Your task to perform on an android device: toggle javascript in the chrome app Image 0: 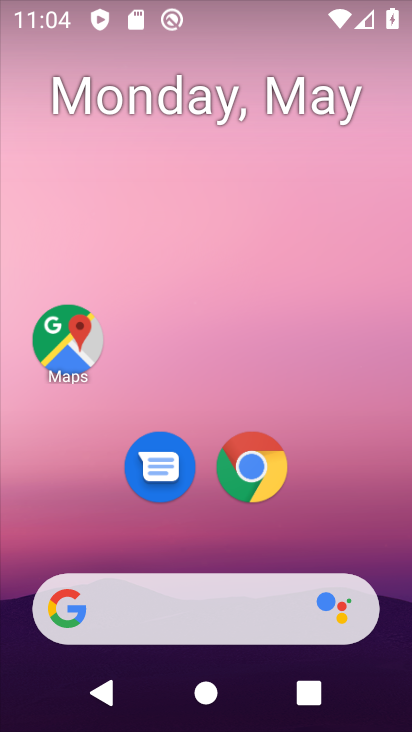
Step 0: click (274, 467)
Your task to perform on an android device: toggle javascript in the chrome app Image 1: 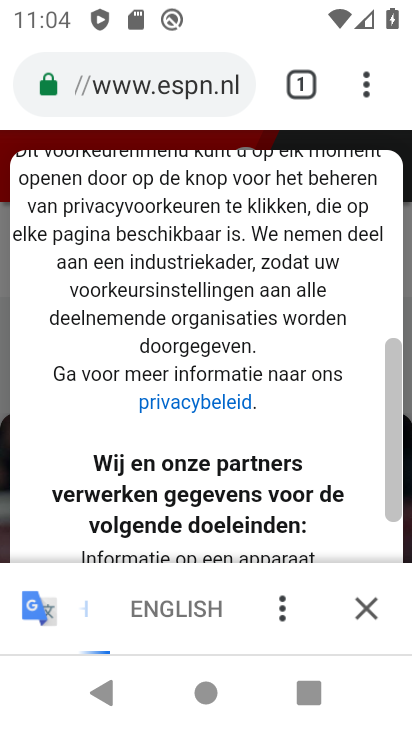
Step 1: click (371, 72)
Your task to perform on an android device: toggle javascript in the chrome app Image 2: 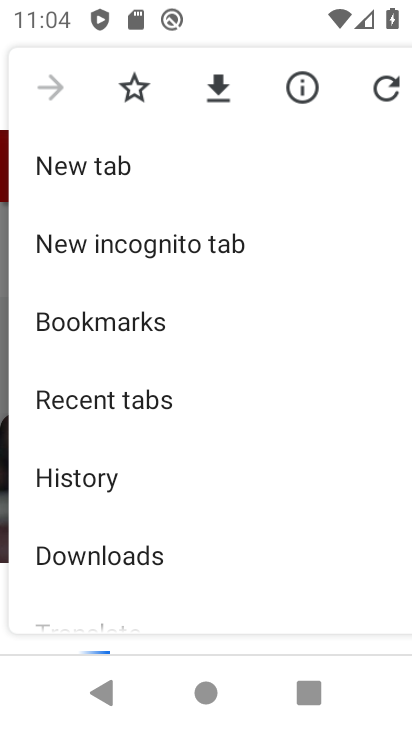
Step 2: drag from (149, 470) to (166, 243)
Your task to perform on an android device: toggle javascript in the chrome app Image 3: 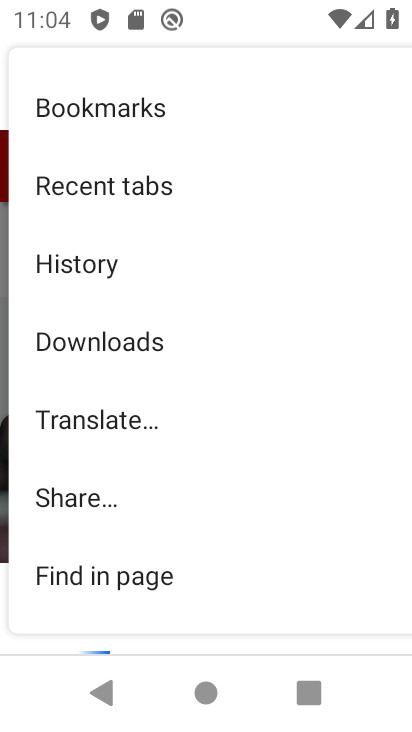
Step 3: drag from (160, 561) to (166, 454)
Your task to perform on an android device: toggle javascript in the chrome app Image 4: 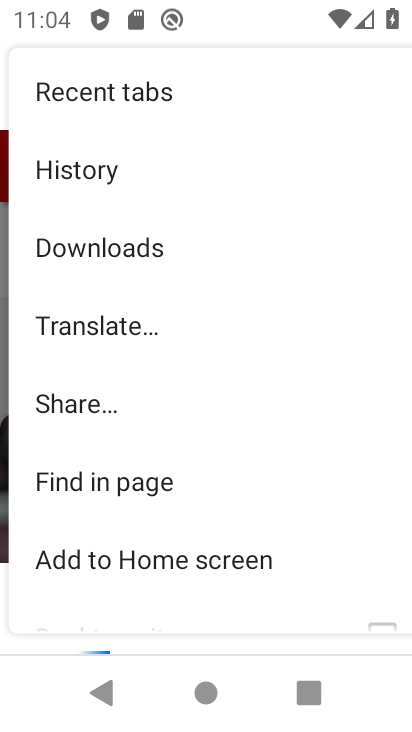
Step 4: drag from (161, 524) to (162, 473)
Your task to perform on an android device: toggle javascript in the chrome app Image 5: 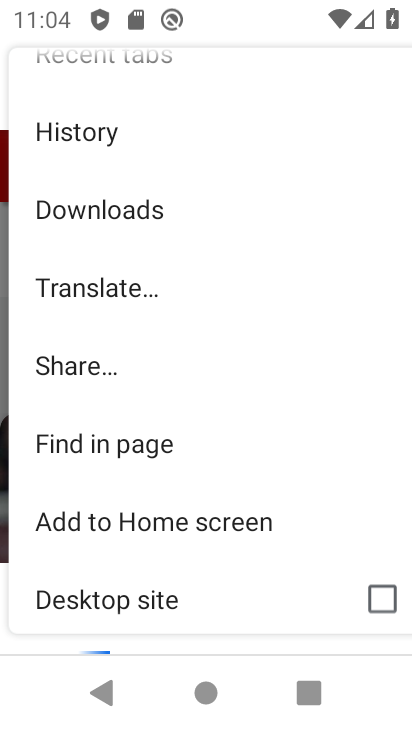
Step 5: drag from (165, 609) to (180, 273)
Your task to perform on an android device: toggle javascript in the chrome app Image 6: 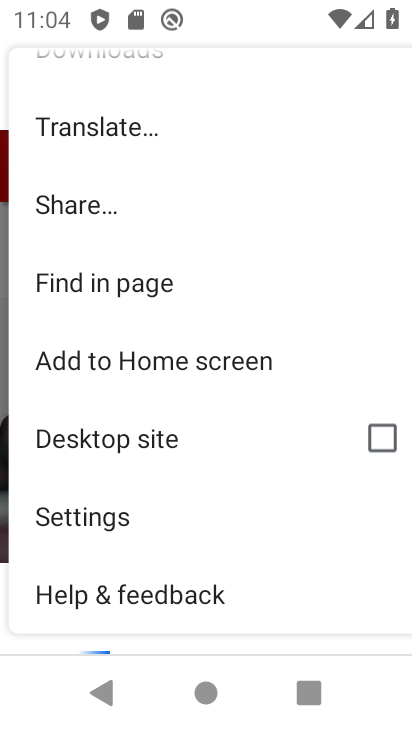
Step 6: click (162, 513)
Your task to perform on an android device: toggle javascript in the chrome app Image 7: 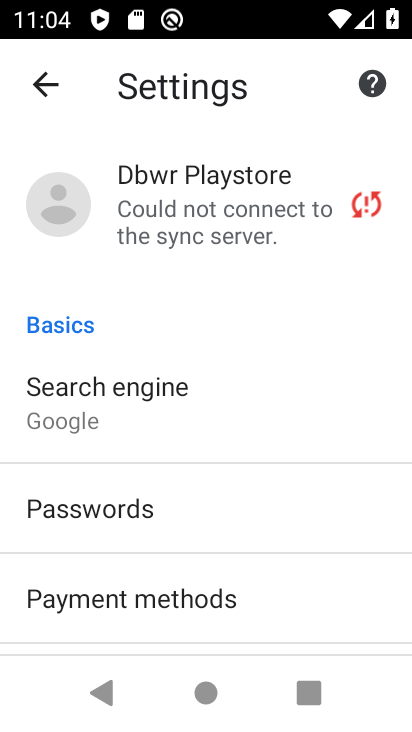
Step 7: drag from (192, 454) to (257, 193)
Your task to perform on an android device: toggle javascript in the chrome app Image 8: 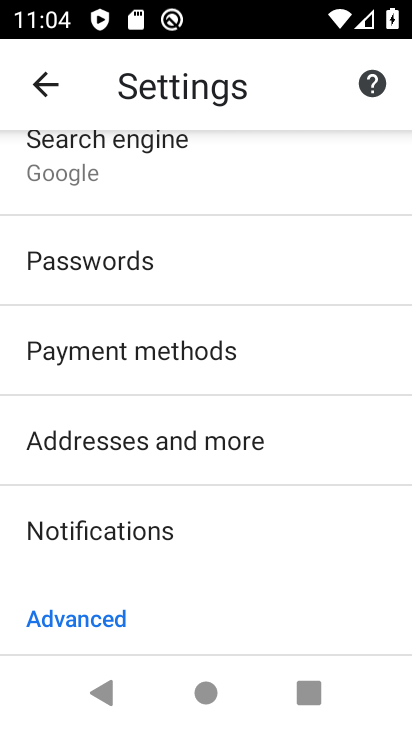
Step 8: drag from (132, 565) to (188, 182)
Your task to perform on an android device: toggle javascript in the chrome app Image 9: 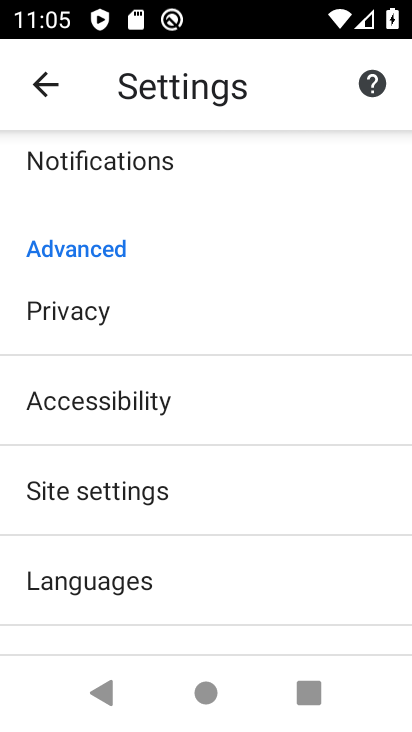
Step 9: drag from (149, 606) to (174, 423)
Your task to perform on an android device: toggle javascript in the chrome app Image 10: 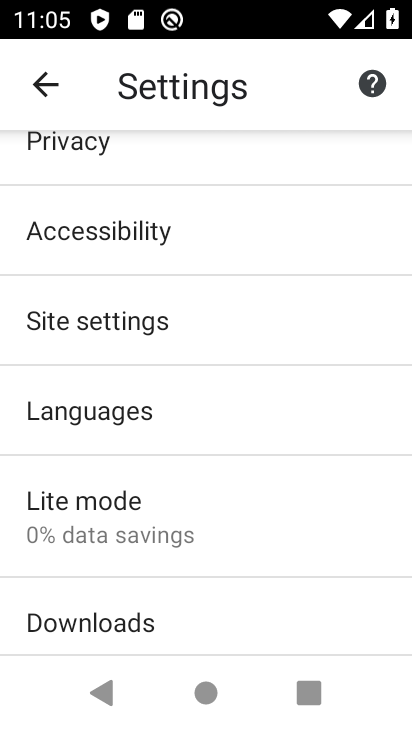
Step 10: click (172, 331)
Your task to perform on an android device: toggle javascript in the chrome app Image 11: 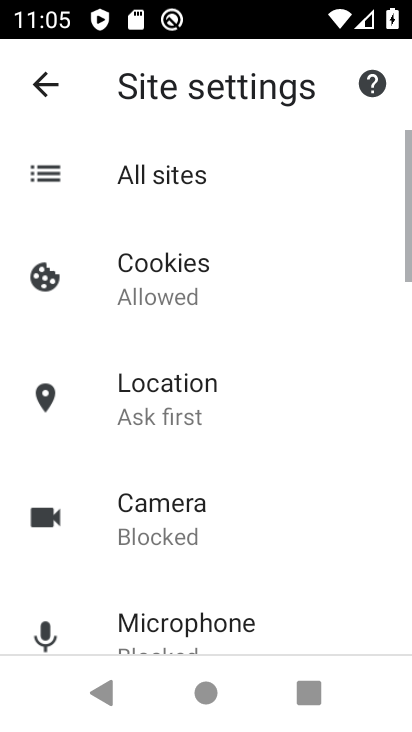
Step 11: drag from (134, 495) to (175, 256)
Your task to perform on an android device: toggle javascript in the chrome app Image 12: 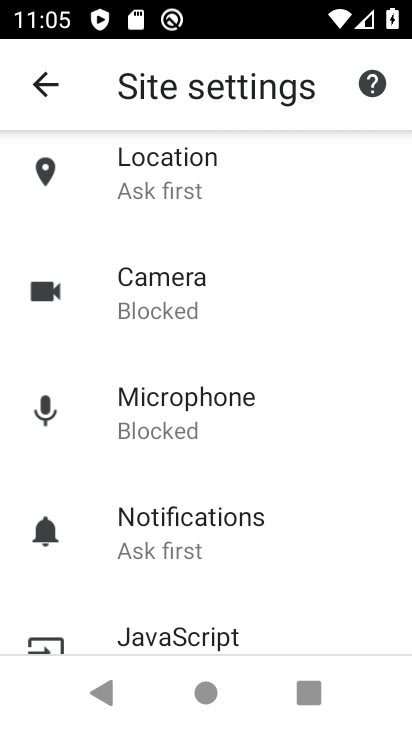
Step 12: click (166, 601)
Your task to perform on an android device: toggle javascript in the chrome app Image 13: 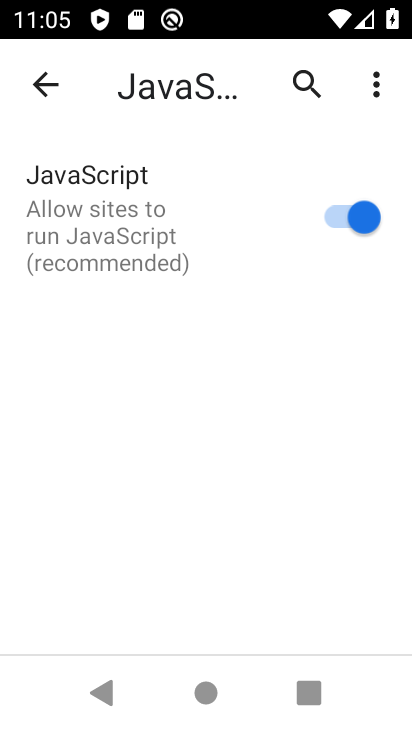
Step 13: click (334, 217)
Your task to perform on an android device: toggle javascript in the chrome app Image 14: 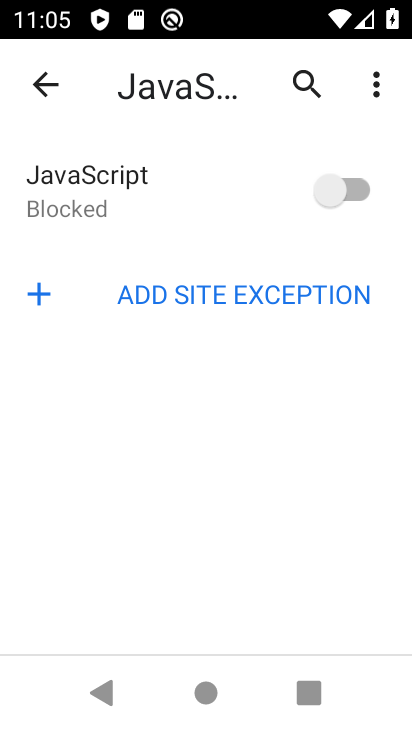
Step 14: task complete